Your task to perform on an android device: Open wifi settings Image 0: 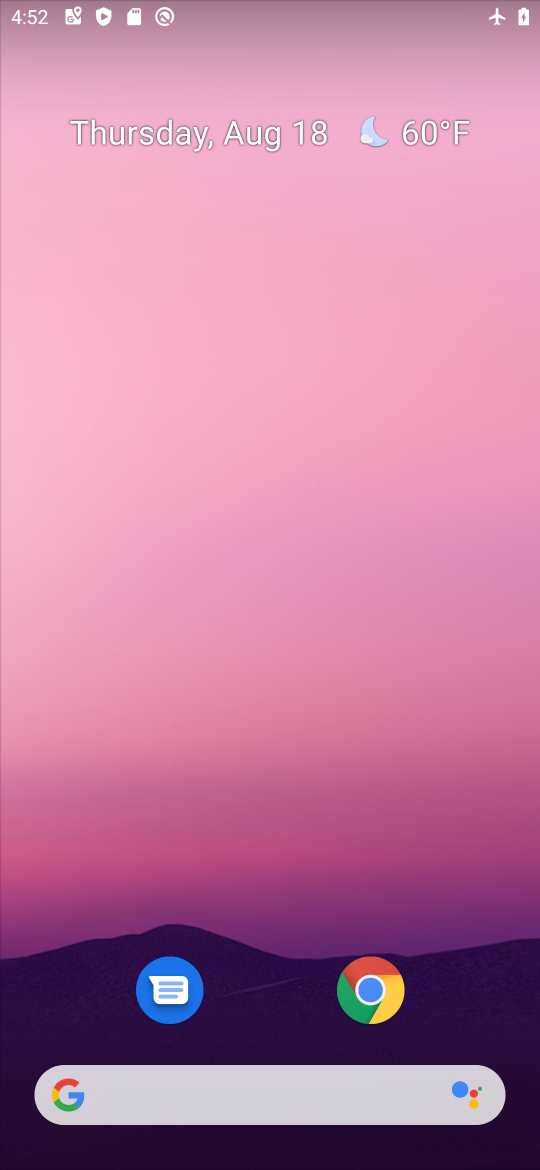
Step 0: drag from (278, 773) to (421, 72)
Your task to perform on an android device: Open wifi settings Image 1: 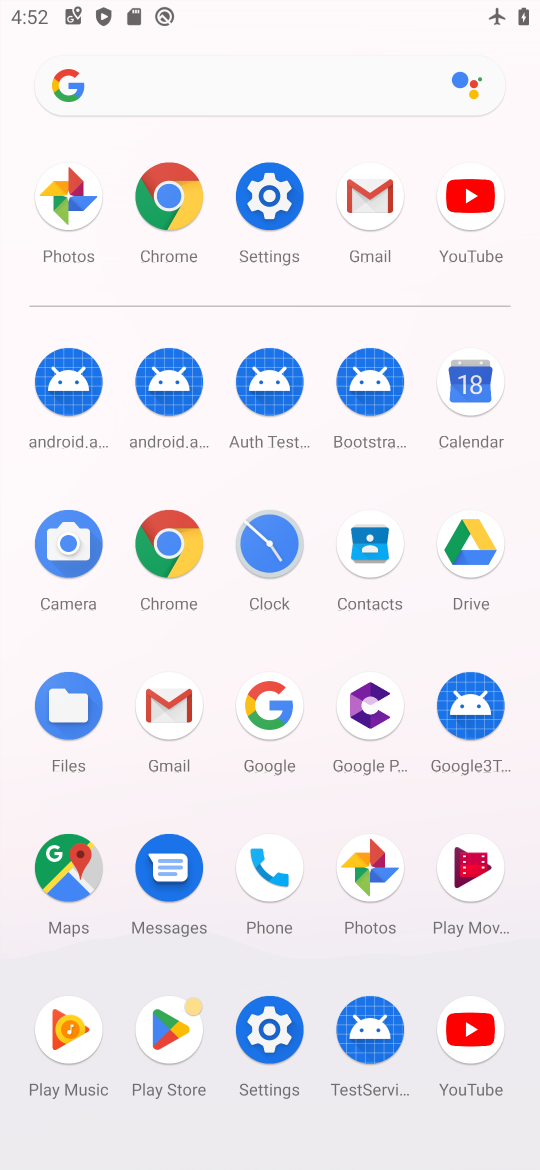
Step 1: click (253, 1017)
Your task to perform on an android device: Open wifi settings Image 2: 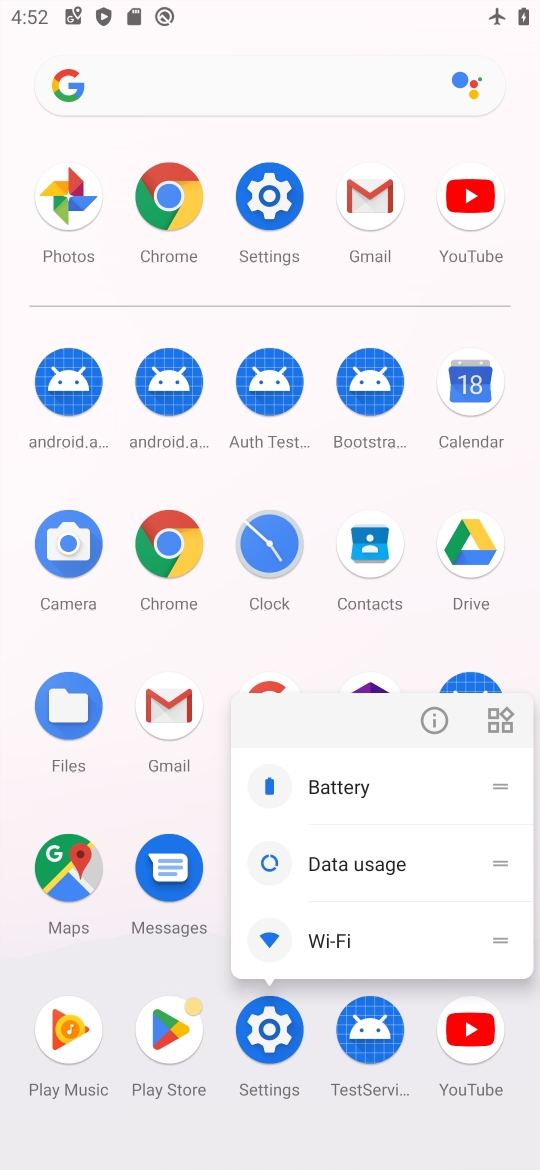
Step 2: click (269, 1027)
Your task to perform on an android device: Open wifi settings Image 3: 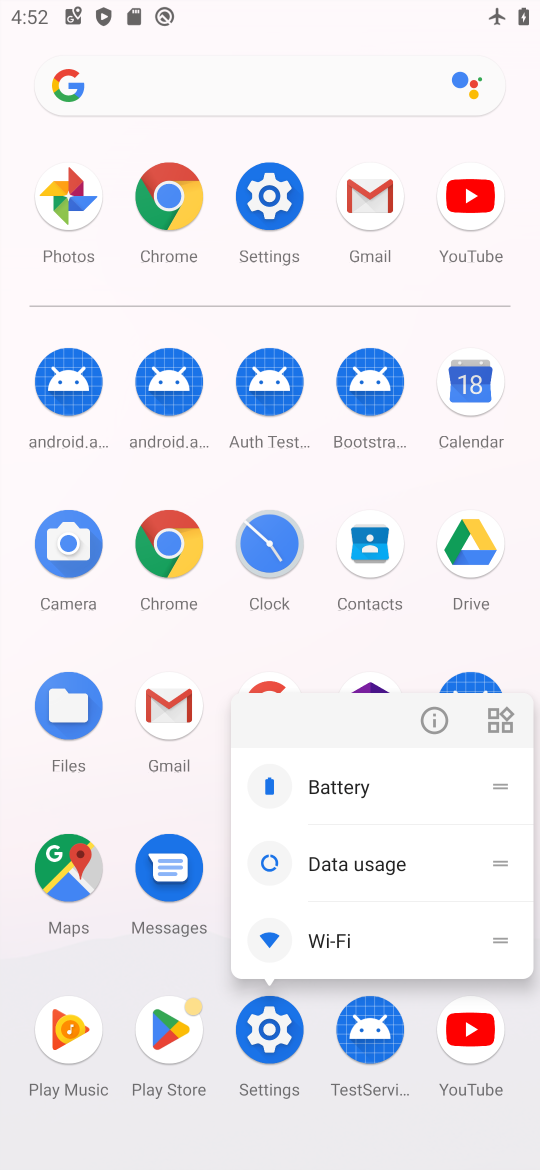
Step 3: click (269, 1027)
Your task to perform on an android device: Open wifi settings Image 4: 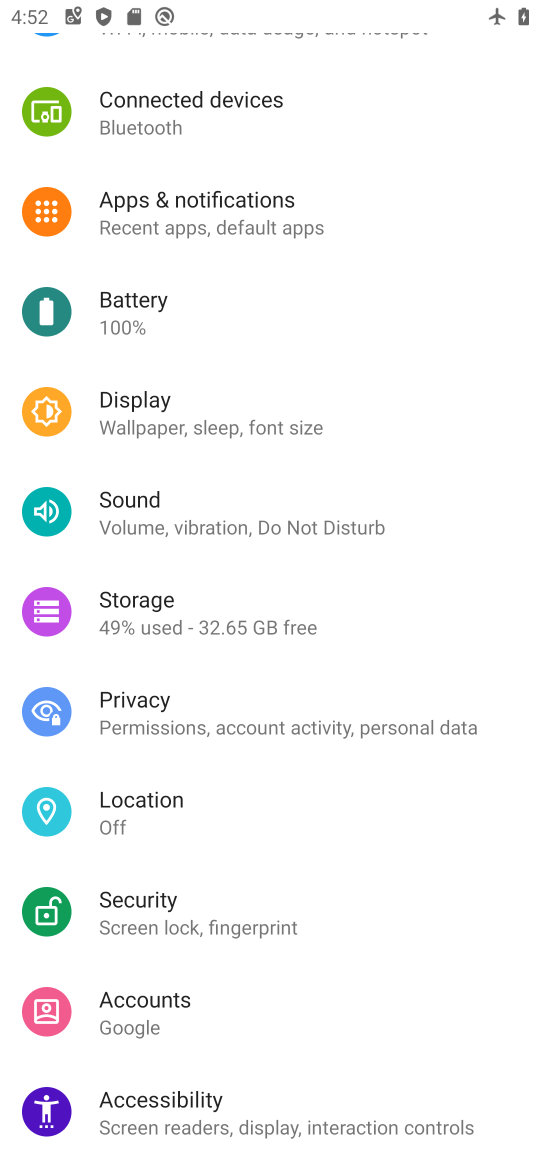
Step 4: drag from (447, 164) to (401, 742)
Your task to perform on an android device: Open wifi settings Image 5: 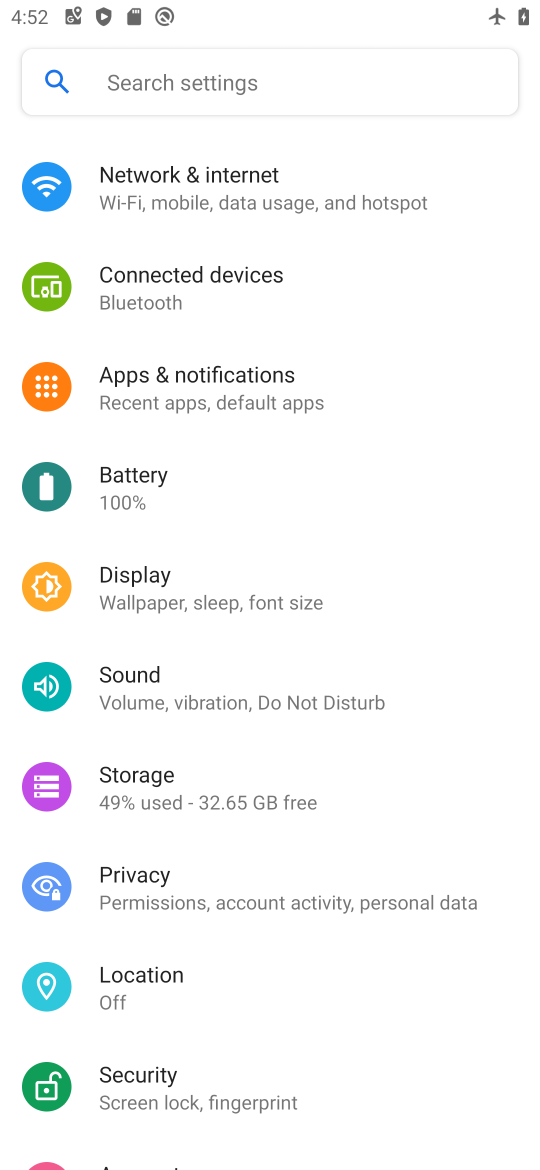
Step 5: click (293, 190)
Your task to perform on an android device: Open wifi settings Image 6: 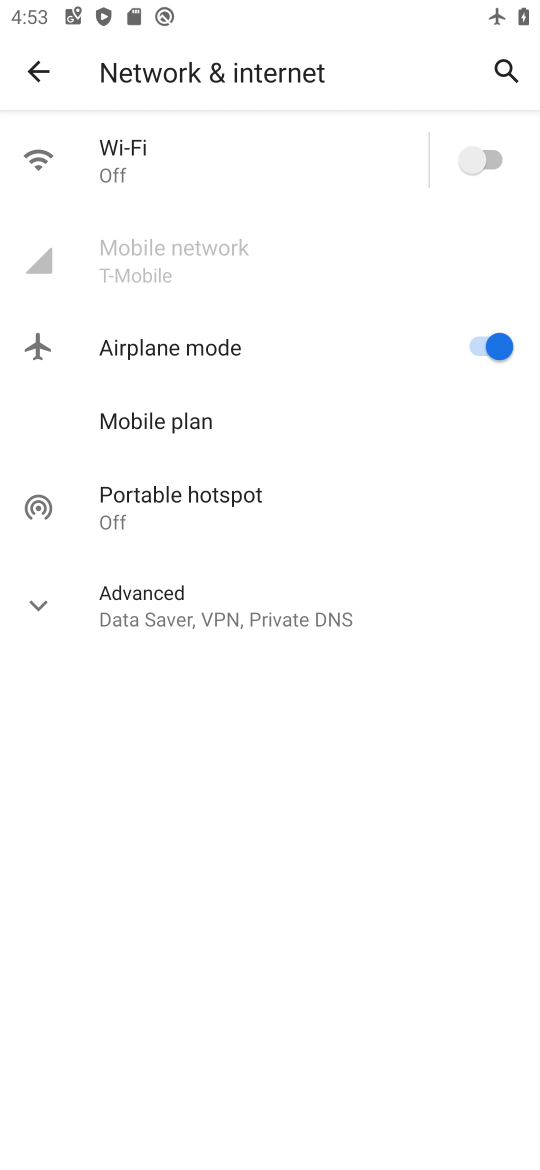
Step 6: click (206, 161)
Your task to perform on an android device: Open wifi settings Image 7: 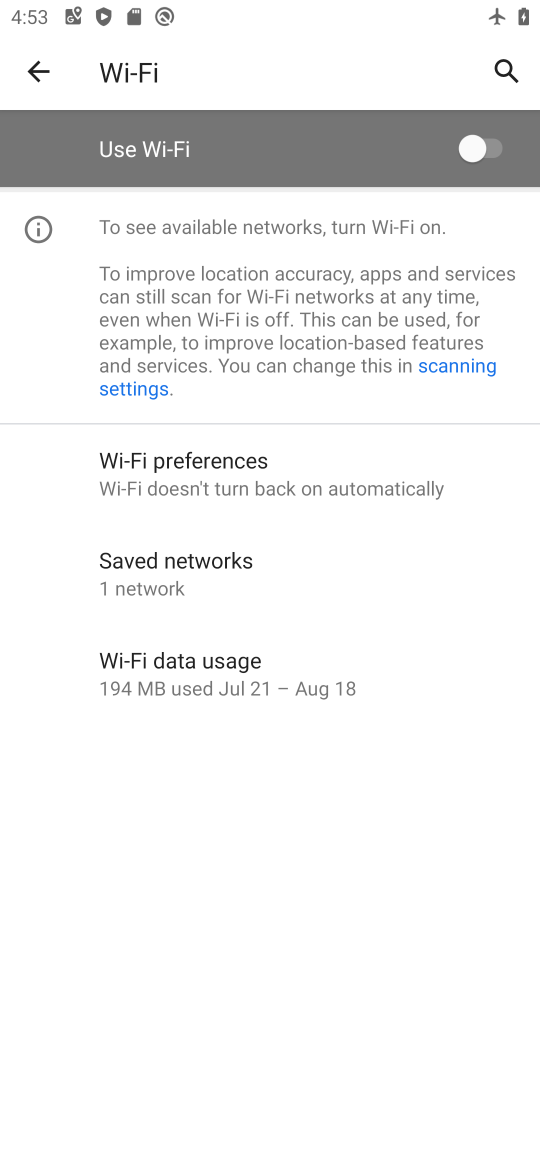
Step 7: task complete